Your task to perform on an android device: change timer sound Image 0: 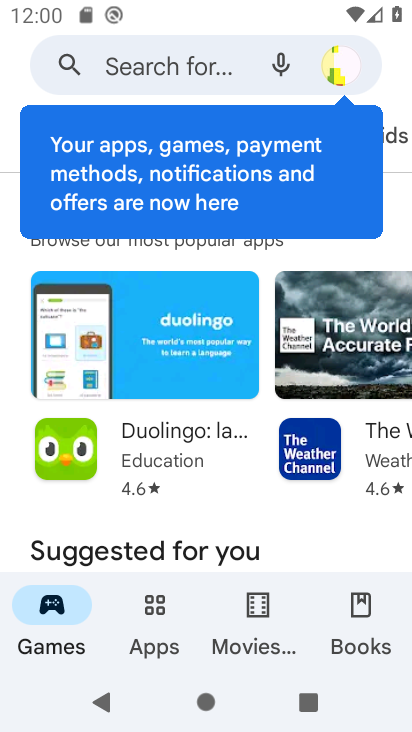
Step 0: press back button
Your task to perform on an android device: change timer sound Image 1: 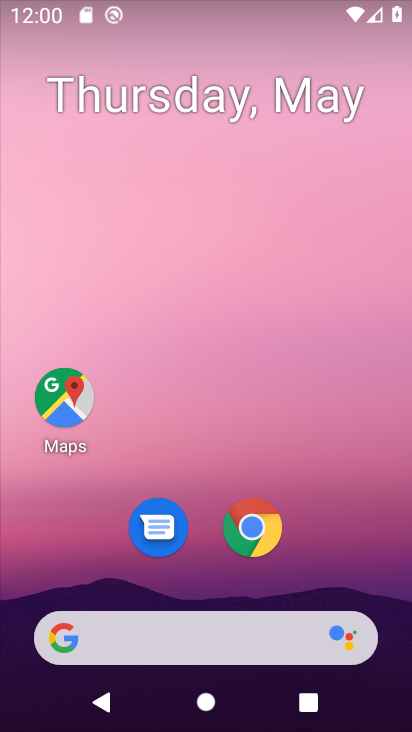
Step 1: drag from (241, 568) to (244, 137)
Your task to perform on an android device: change timer sound Image 2: 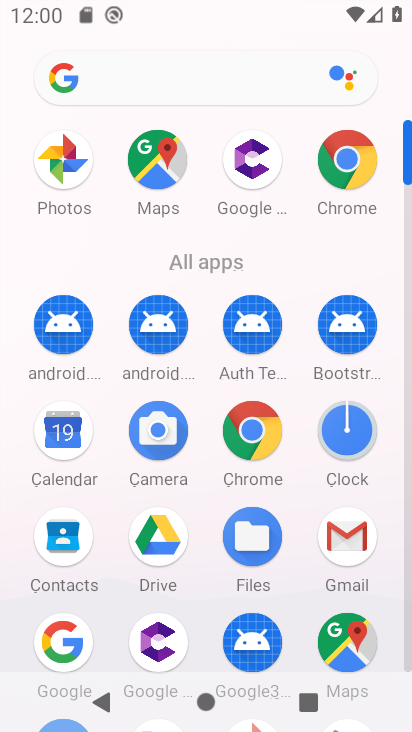
Step 2: click (346, 438)
Your task to perform on an android device: change timer sound Image 3: 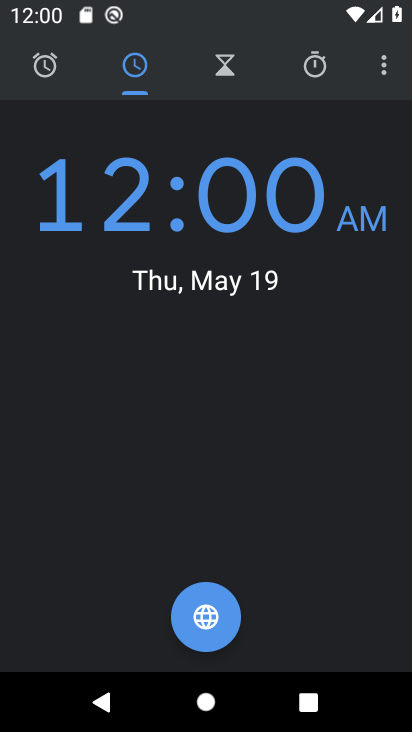
Step 3: click (382, 62)
Your task to perform on an android device: change timer sound Image 4: 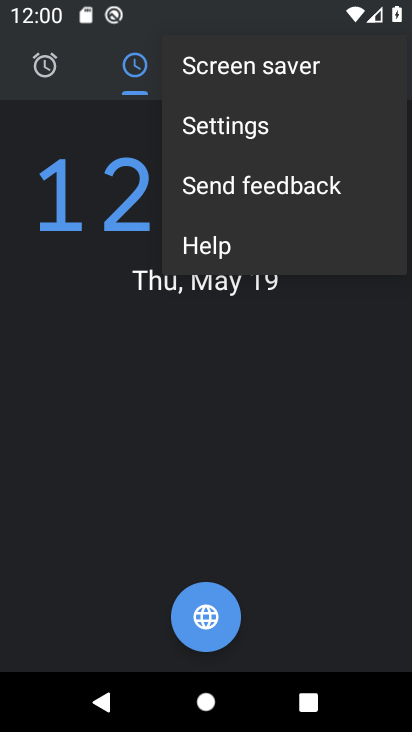
Step 4: click (246, 136)
Your task to perform on an android device: change timer sound Image 5: 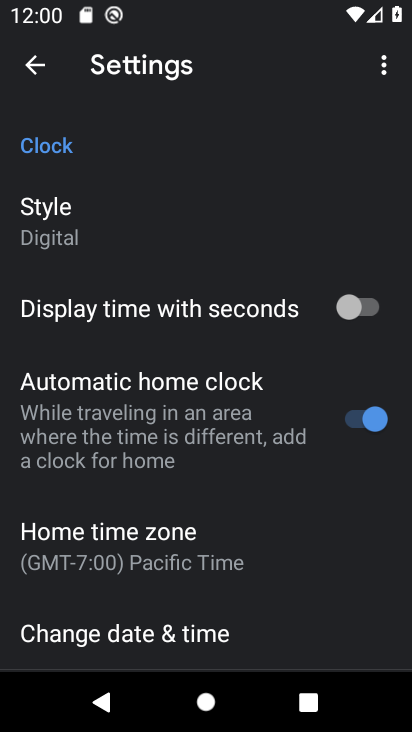
Step 5: drag from (177, 610) to (289, 102)
Your task to perform on an android device: change timer sound Image 6: 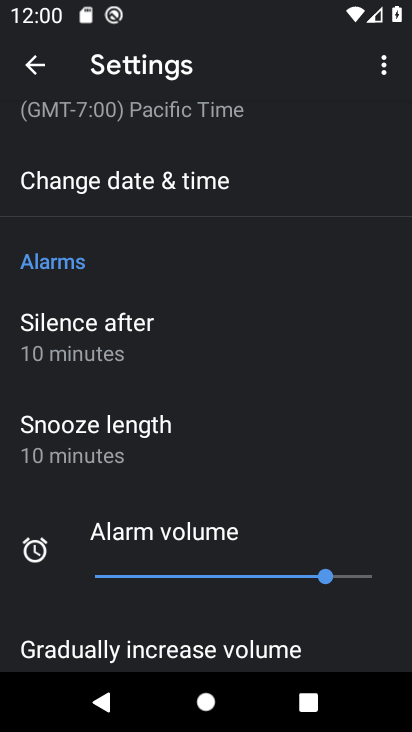
Step 6: drag from (191, 520) to (255, 79)
Your task to perform on an android device: change timer sound Image 7: 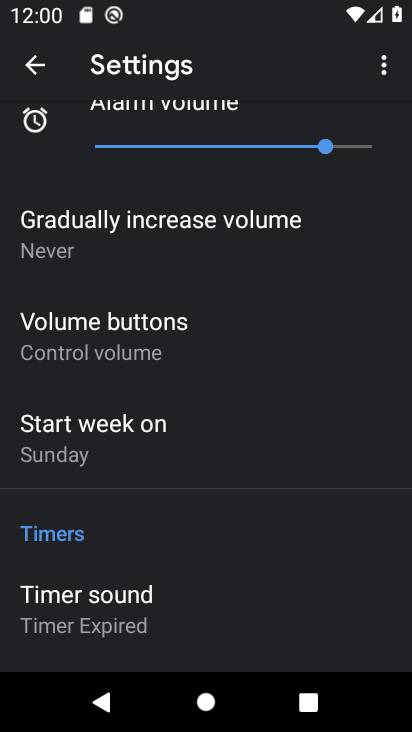
Step 7: click (136, 607)
Your task to perform on an android device: change timer sound Image 8: 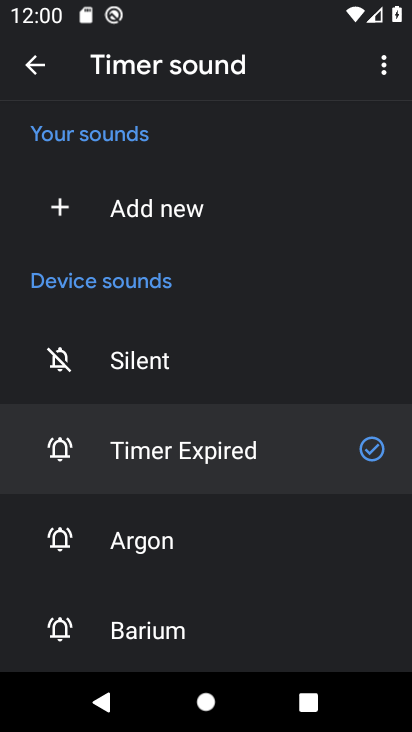
Step 8: click (186, 530)
Your task to perform on an android device: change timer sound Image 9: 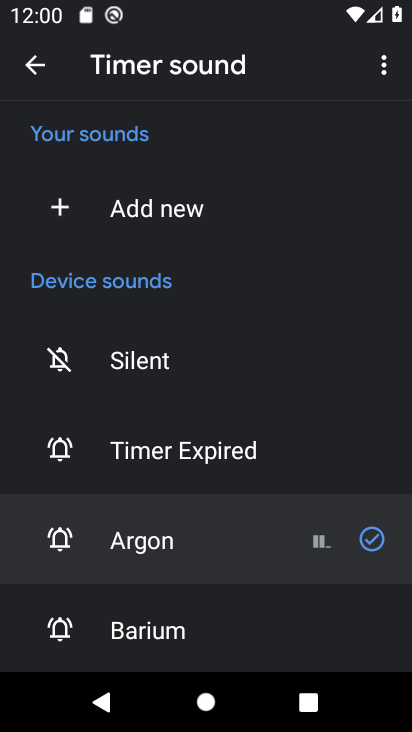
Step 9: task complete